Your task to perform on an android device: Open internet settings Image 0: 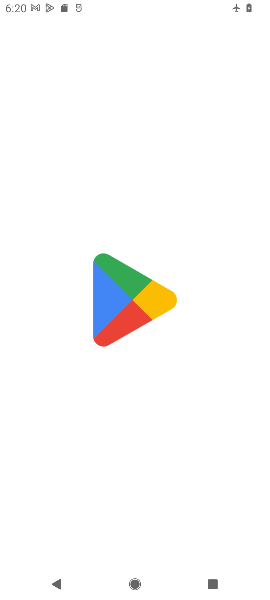
Step 0: press home button
Your task to perform on an android device: Open internet settings Image 1: 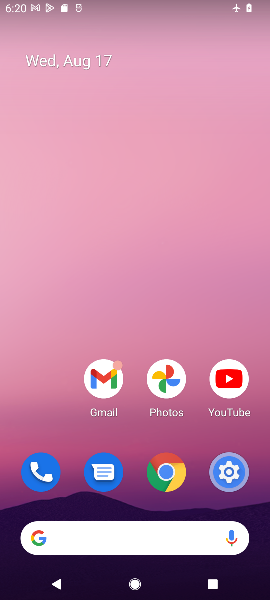
Step 1: click (230, 467)
Your task to perform on an android device: Open internet settings Image 2: 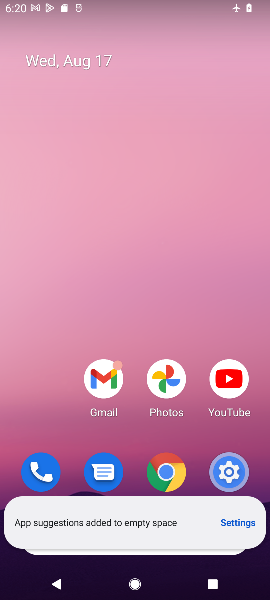
Step 2: click (228, 467)
Your task to perform on an android device: Open internet settings Image 3: 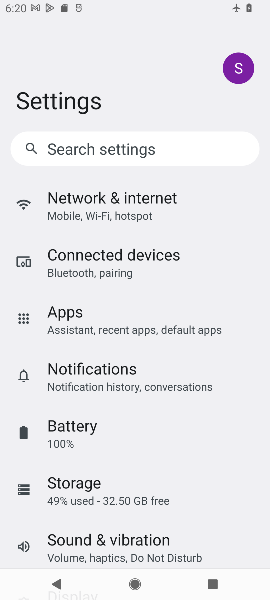
Step 3: click (138, 201)
Your task to perform on an android device: Open internet settings Image 4: 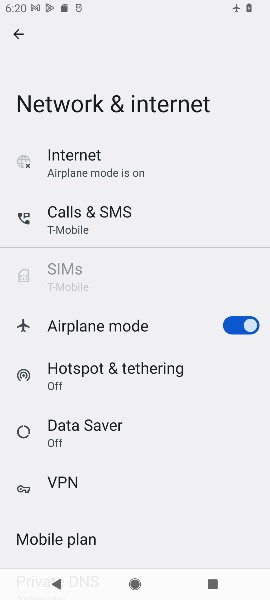
Step 4: task complete